Your task to perform on an android device: When is my next appointment? Image 0: 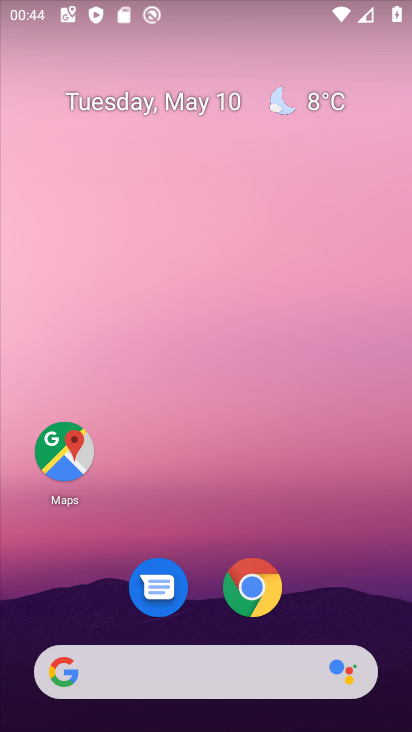
Step 0: drag from (399, 684) to (377, 369)
Your task to perform on an android device: When is my next appointment? Image 1: 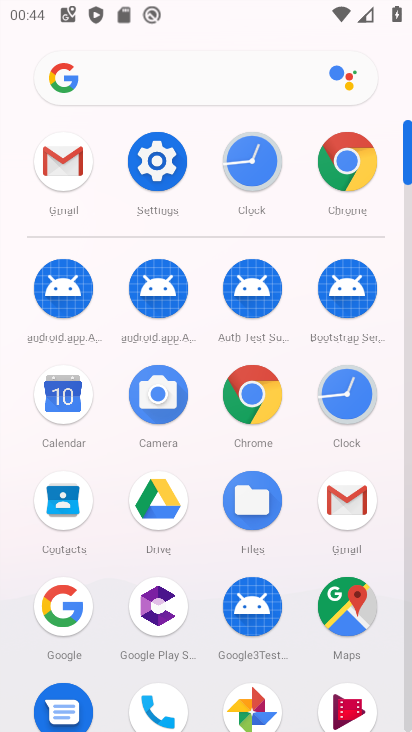
Step 1: click (68, 395)
Your task to perform on an android device: When is my next appointment? Image 2: 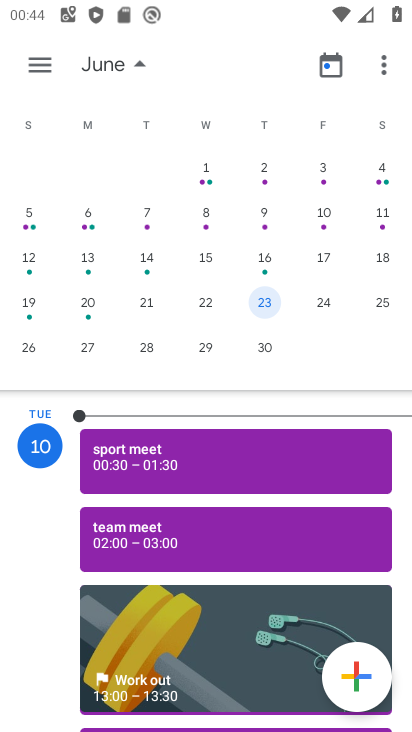
Step 2: drag from (18, 175) to (271, 193)
Your task to perform on an android device: When is my next appointment? Image 3: 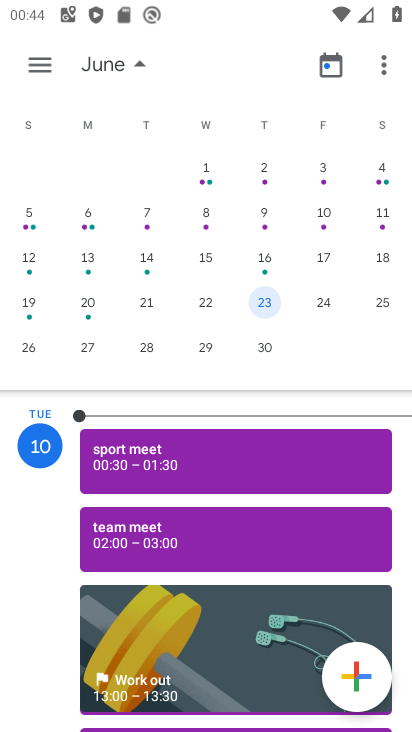
Step 3: drag from (191, 187) to (407, 173)
Your task to perform on an android device: When is my next appointment? Image 4: 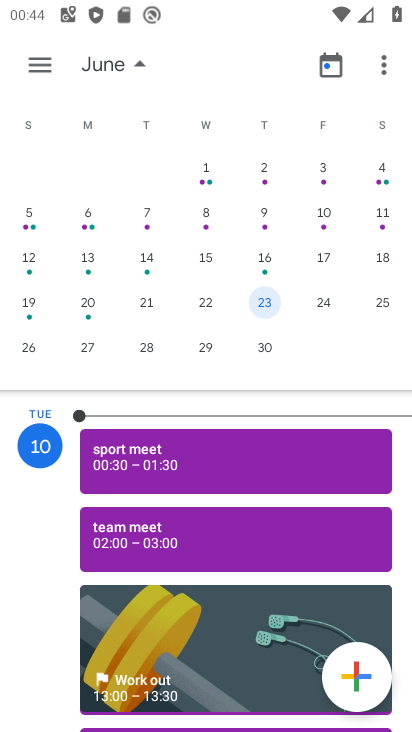
Step 4: drag from (8, 138) to (409, 167)
Your task to perform on an android device: When is my next appointment? Image 5: 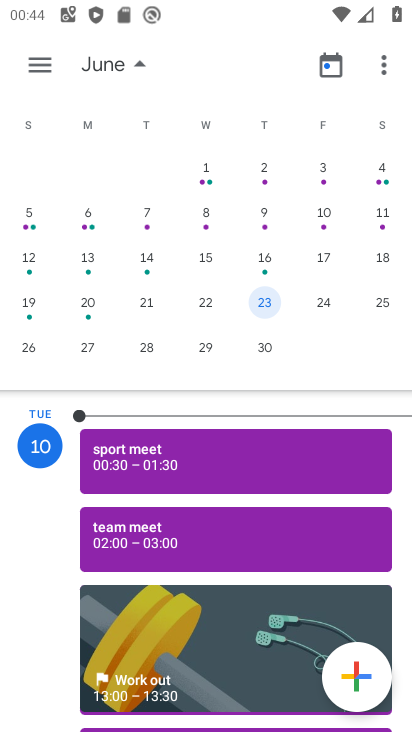
Step 5: drag from (3, 157) to (295, 155)
Your task to perform on an android device: When is my next appointment? Image 6: 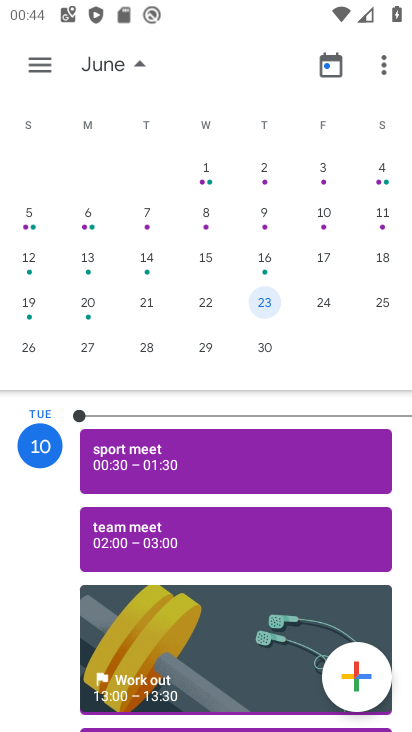
Step 6: drag from (30, 170) to (301, 223)
Your task to perform on an android device: When is my next appointment? Image 7: 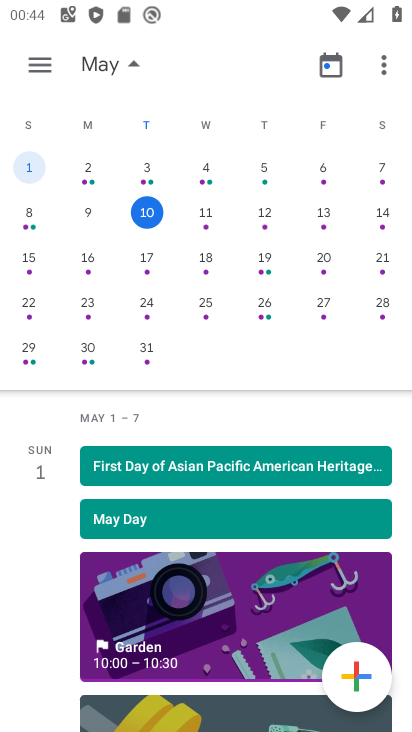
Step 7: click (44, 70)
Your task to perform on an android device: When is my next appointment? Image 8: 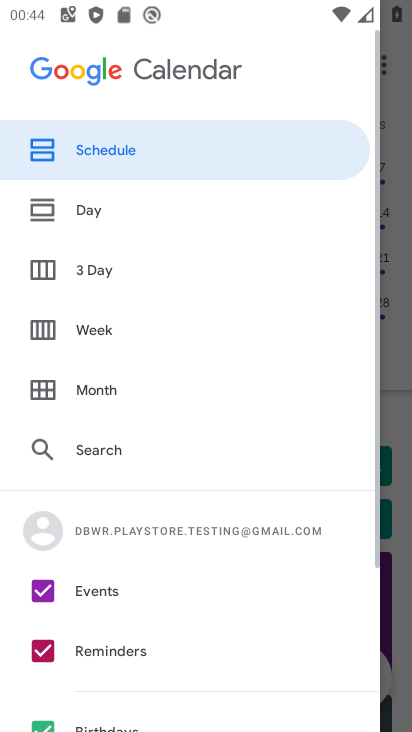
Step 8: click (89, 145)
Your task to perform on an android device: When is my next appointment? Image 9: 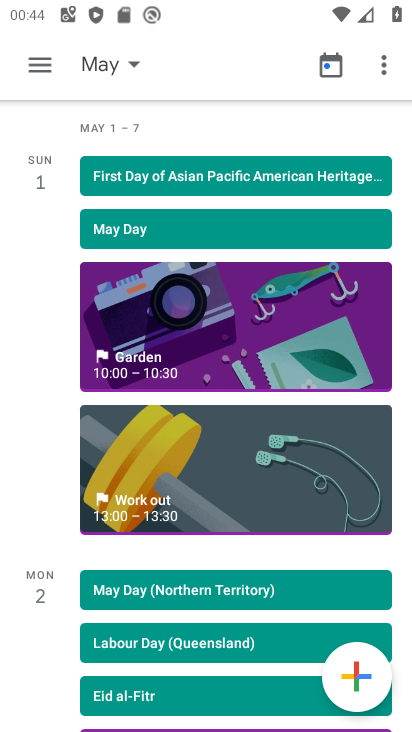
Step 9: click (45, 65)
Your task to perform on an android device: When is my next appointment? Image 10: 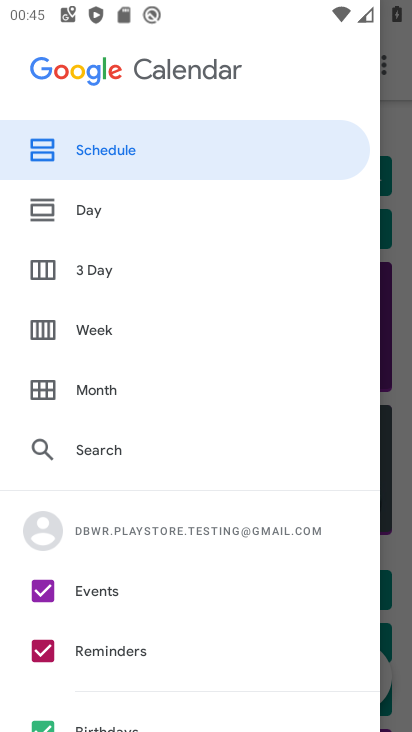
Step 10: click (39, 643)
Your task to perform on an android device: When is my next appointment? Image 11: 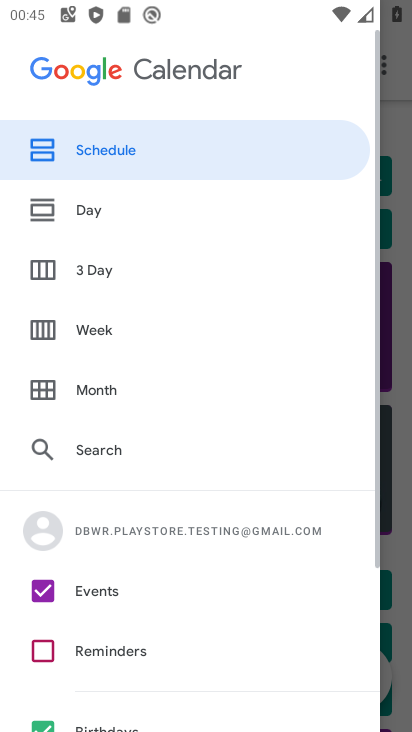
Step 11: drag from (253, 592) to (256, 414)
Your task to perform on an android device: When is my next appointment? Image 12: 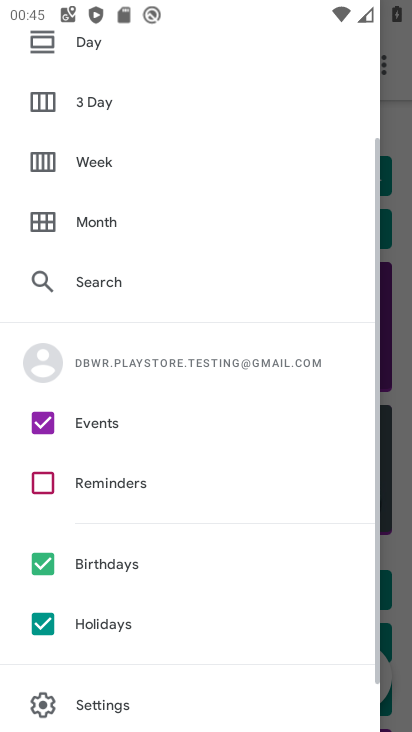
Step 12: click (53, 564)
Your task to perform on an android device: When is my next appointment? Image 13: 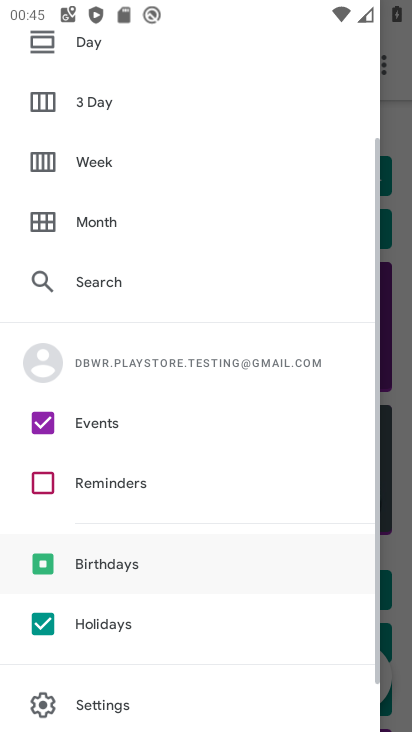
Step 13: click (54, 620)
Your task to perform on an android device: When is my next appointment? Image 14: 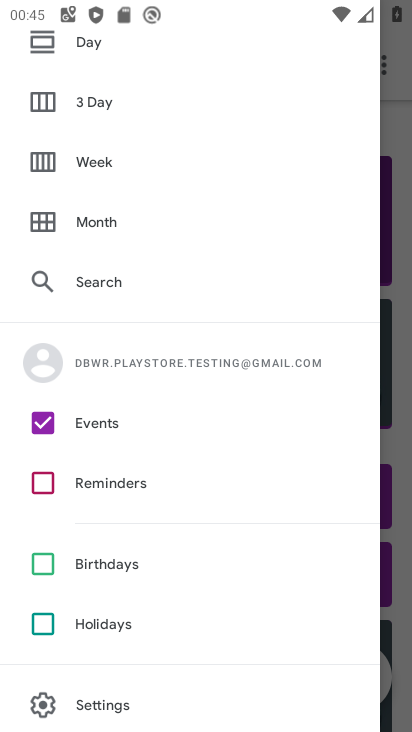
Step 14: task complete